Your task to perform on an android device: Search for Italian restaurants on Maps Image 0: 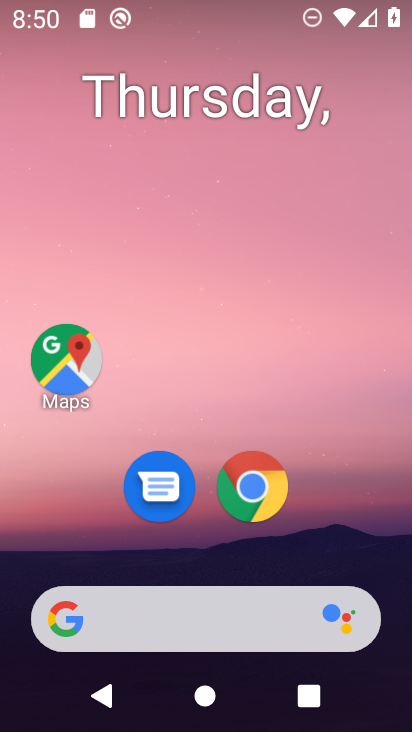
Step 0: click (58, 365)
Your task to perform on an android device: Search for Italian restaurants on Maps Image 1: 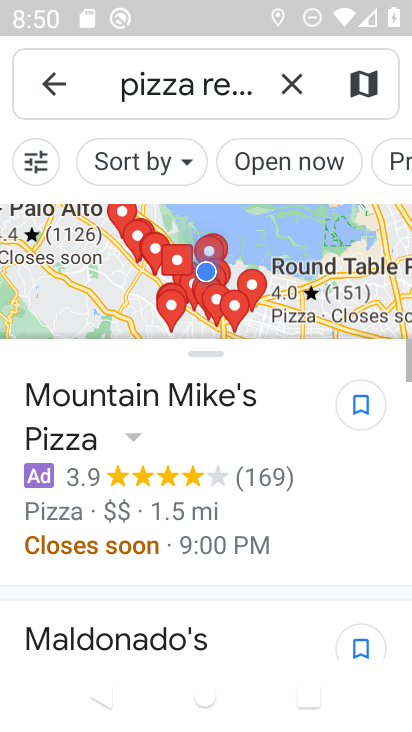
Step 1: click (288, 83)
Your task to perform on an android device: Search for Italian restaurants on Maps Image 2: 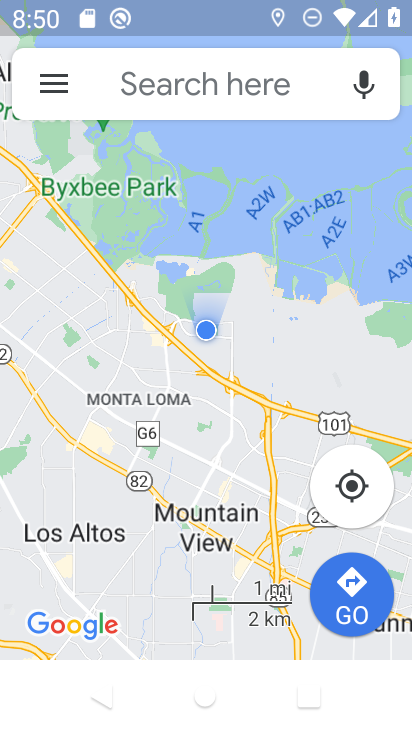
Step 2: click (170, 93)
Your task to perform on an android device: Search for Italian restaurants on Maps Image 3: 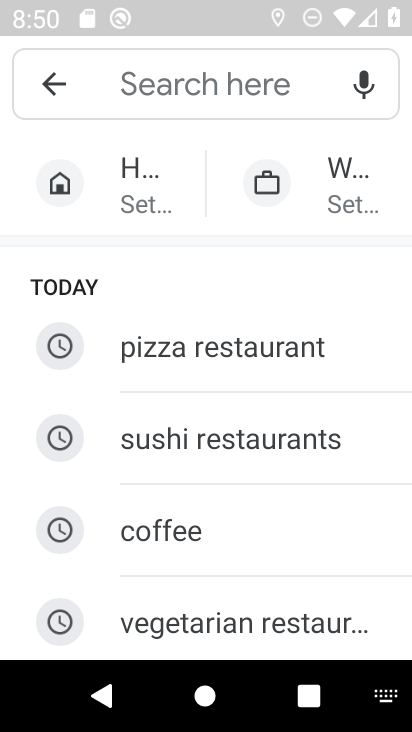
Step 3: drag from (211, 570) to (275, 109)
Your task to perform on an android device: Search for Italian restaurants on Maps Image 4: 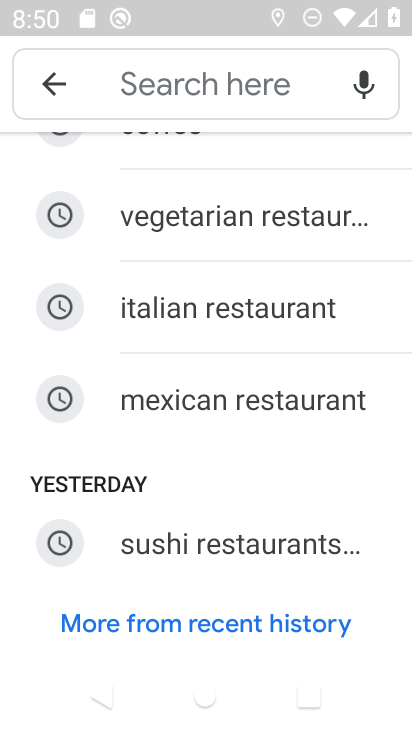
Step 4: click (200, 296)
Your task to perform on an android device: Search for Italian restaurants on Maps Image 5: 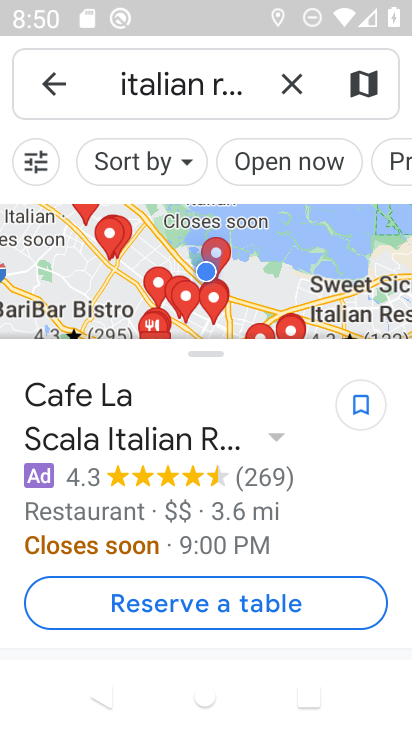
Step 5: task complete